Your task to perform on an android device: turn off sleep mode Image 0: 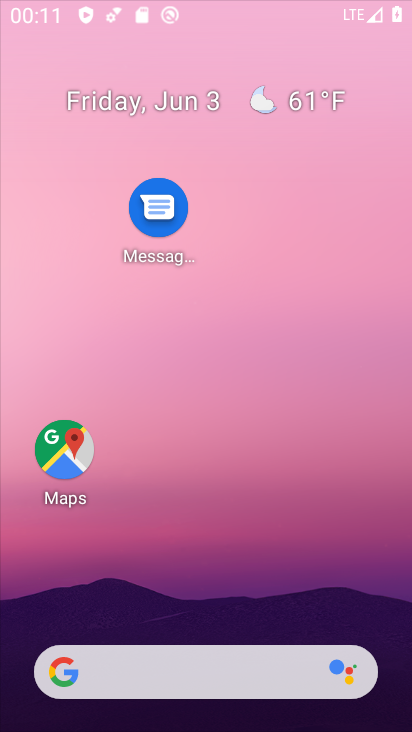
Step 0: press home button
Your task to perform on an android device: turn off sleep mode Image 1: 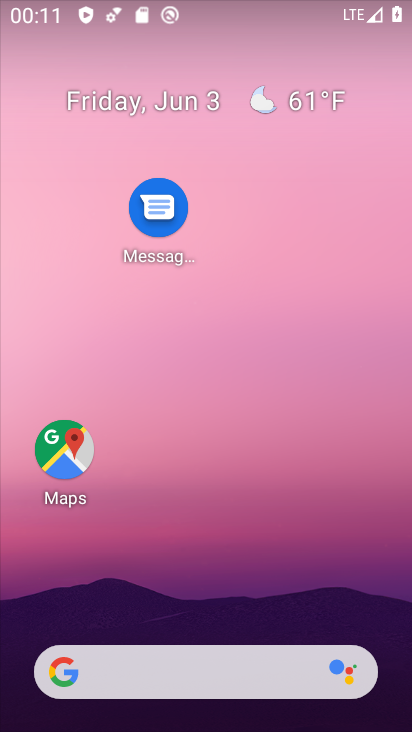
Step 1: drag from (222, 632) to (113, 3)
Your task to perform on an android device: turn off sleep mode Image 2: 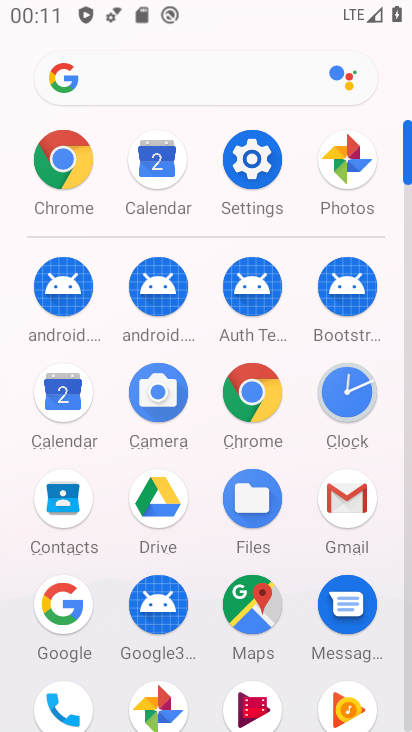
Step 2: click (253, 149)
Your task to perform on an android device: turn off sleep mode Image 3: 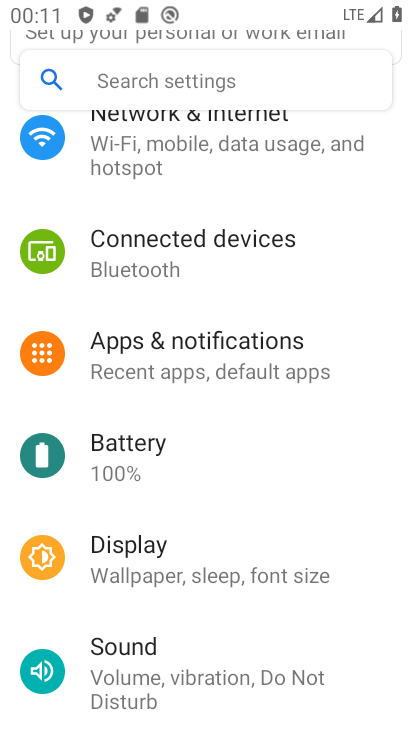
Step 3: drag from (199, 593) to (203, 280)
Your task to perform on an android device: turn off sleep mode Image 4: 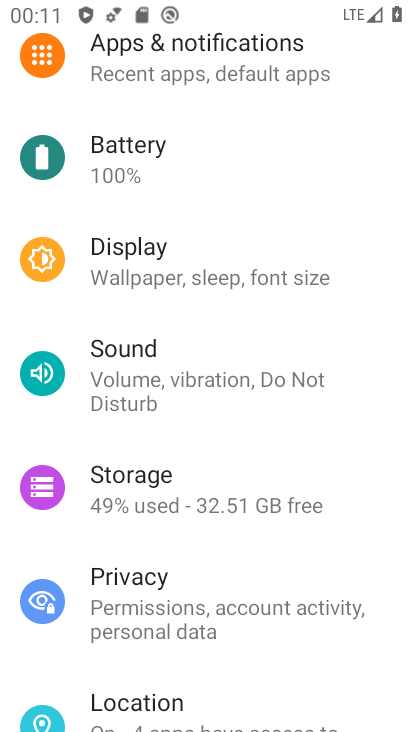
Step 4: click (158, 276)
Your task to perform on an android device: turn off sleep mode Image 5: 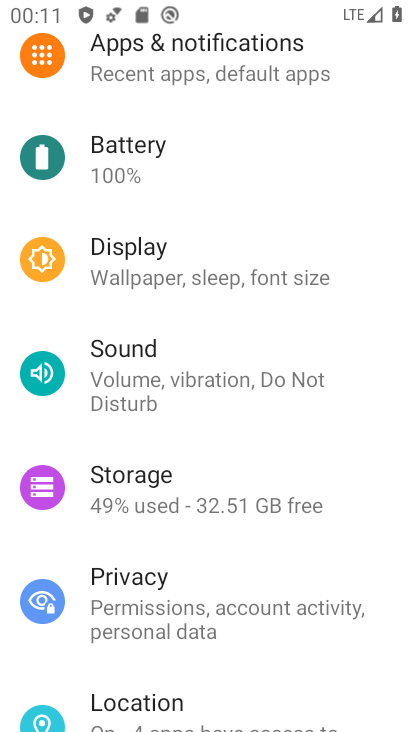
Step 5: task complete